Your task to perform on an android device: search for starred emails in the gmail app Image 0: 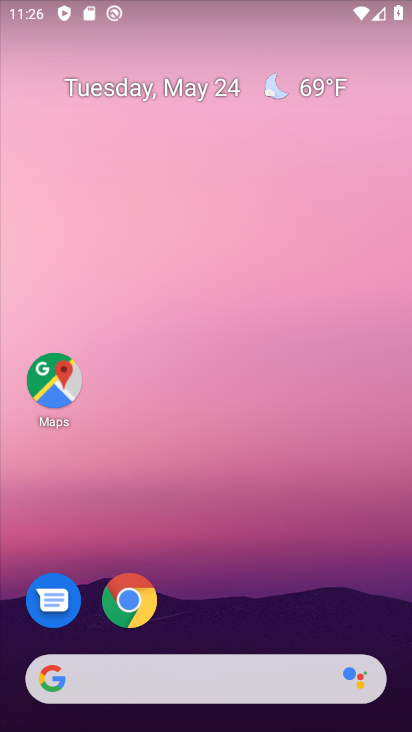
Step 0: drag from (381, 633) to (384, 152)
Your task to perform on an android device: search for starred emails in the gmail app Image 1: 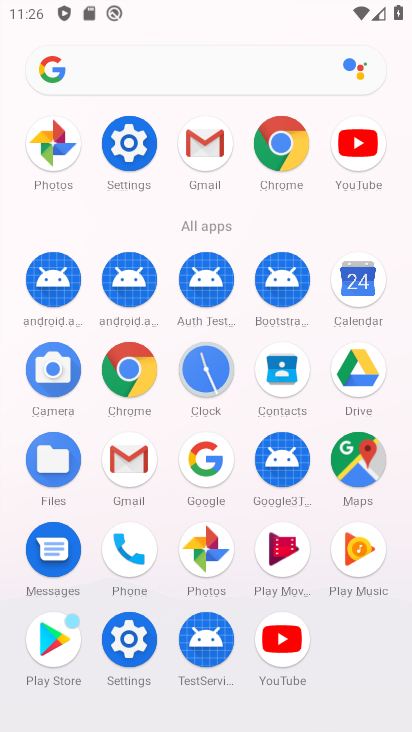
Step 1: click (123, 475)
Your task to perform on an android device: search for starred emails in the gmail app Image 2: 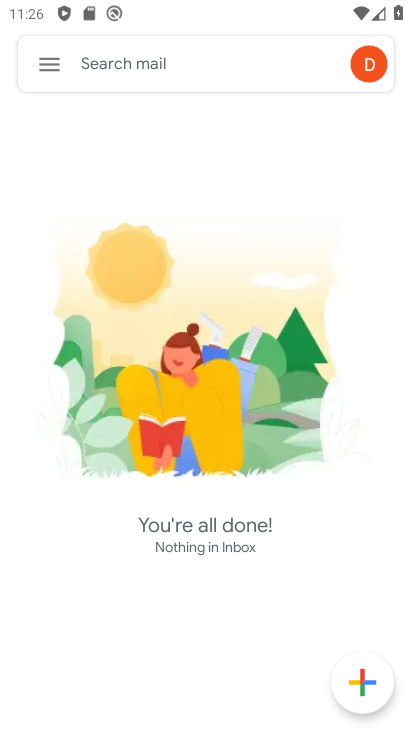
Step 2: click (49, 71)
Your task to perform on an android device: search for starred emails in the gmail app Image 3: 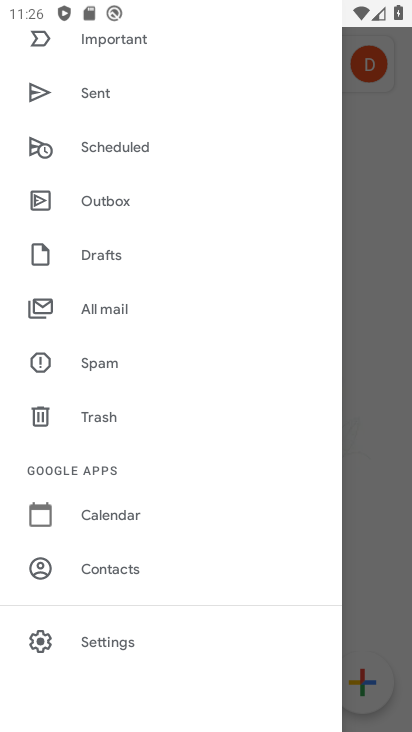
Step 3: drag from (286, 273) to (284, 427)
Your task to perform on an android device: search for starred emails in the gmail app Image 4: 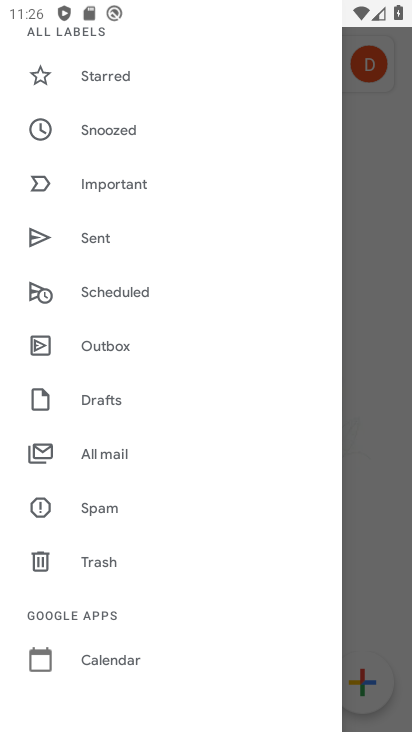
Step 4: drag from (257, 207) to (265, 367)
Your task to perform on an android device: search for starred emails in the gmail app Image 5: 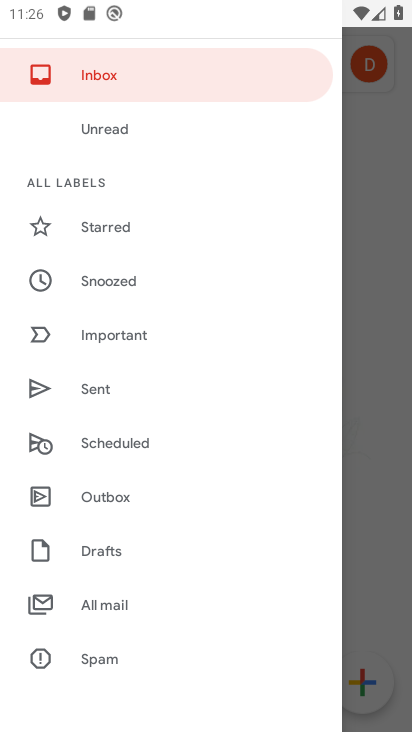
Step 5: drag from (251, 180) to (253, 344)
Your task to perform on an android device: search for starred emails in the gmail app Image 6: 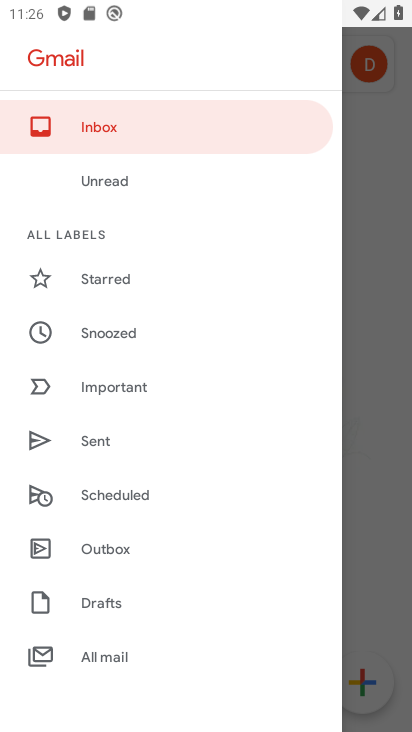
Step 6: drag from (246, 425) to (255, 268)
Your task to perform on an android device: search for starred emails in the gmail app Image 7: 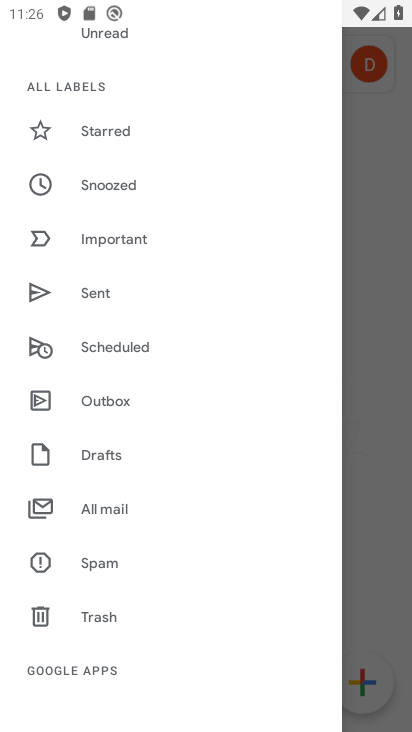
Step 7: drag from (256, 469) to (253, 326)
Your task to perform on an android device: search for starred emails in the gmail app Image 8: 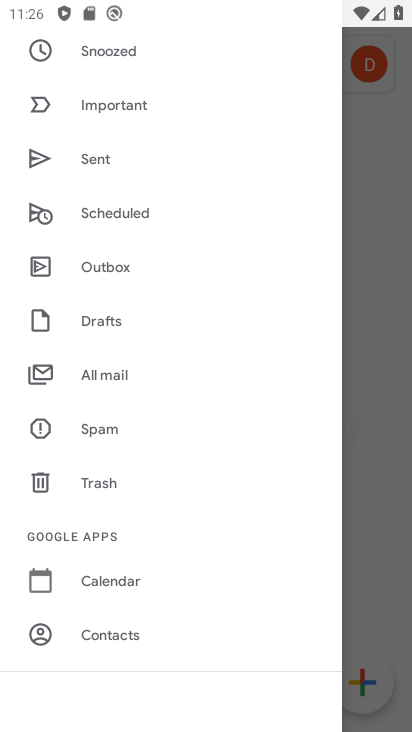
Step 8: drag from (245, 552) to (249, 414)
Your task to perform on an android device: search for starred emails in the gmail app Image 9: 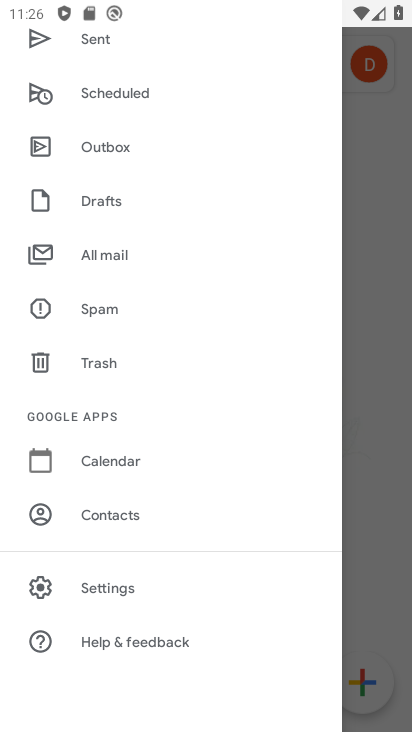
Step 9: drag from (233, 295) to (231, 397)
Your task to perform on an android device: search for starred emails in the gmail app Image 10: 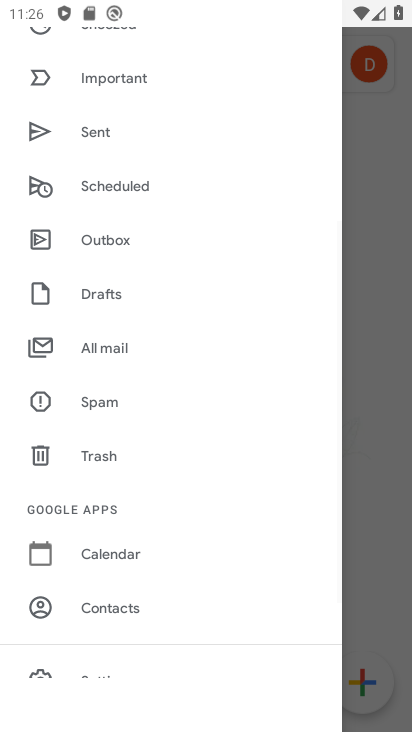
Step 10: drag from (228, 244) to (225, 353)
Your task to perform on an android device: search for starred emails in the gmail app Image 11: 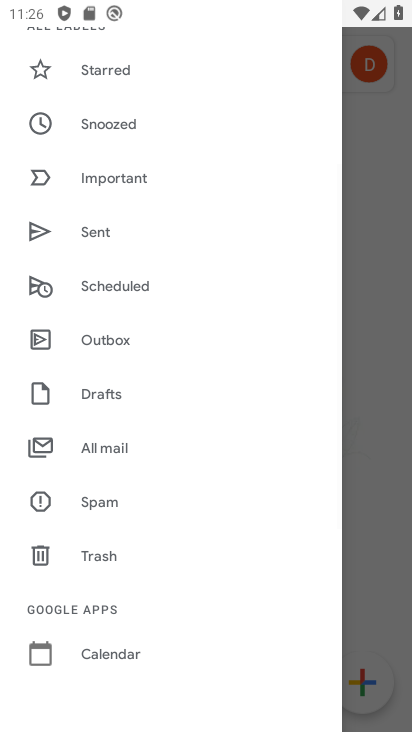
Step 11: drag from (223, 207) to (230, 330)
Your task to perform on an android device: search for starred emails in the gmail app Image 12: 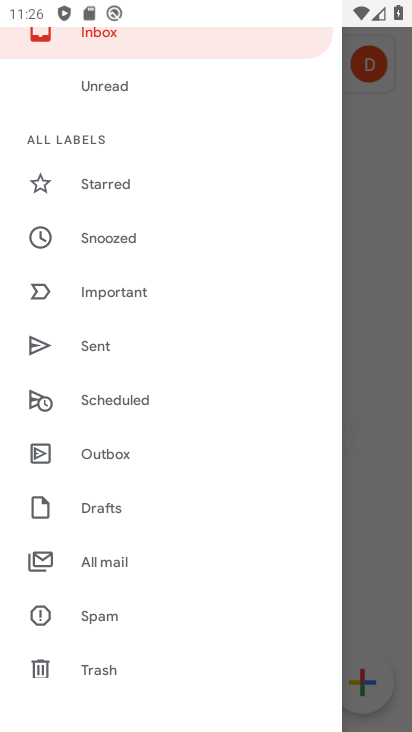
Step 12: drag from (232, 196) to (225, 316)
Your task to perform on an android device: search for starred emails in the gmail app Image 13: 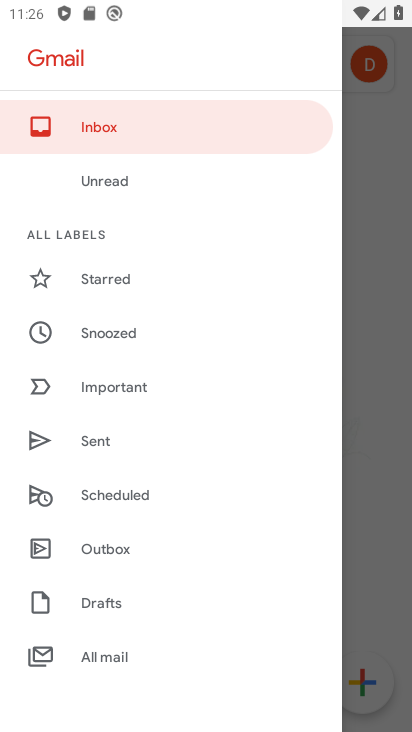
Step 13: click (141, 282)
Your task to perform on an android device: search for starred emails in the gmail app Image 14: 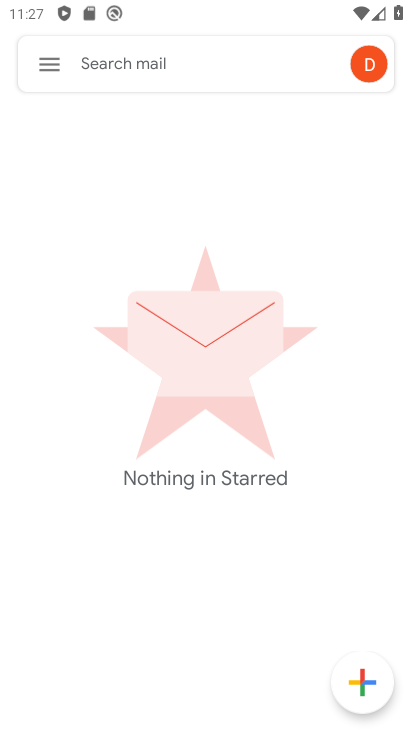
Step 14: task complete